Your task to perform on an android device: star an email in the gmail app Image 0: 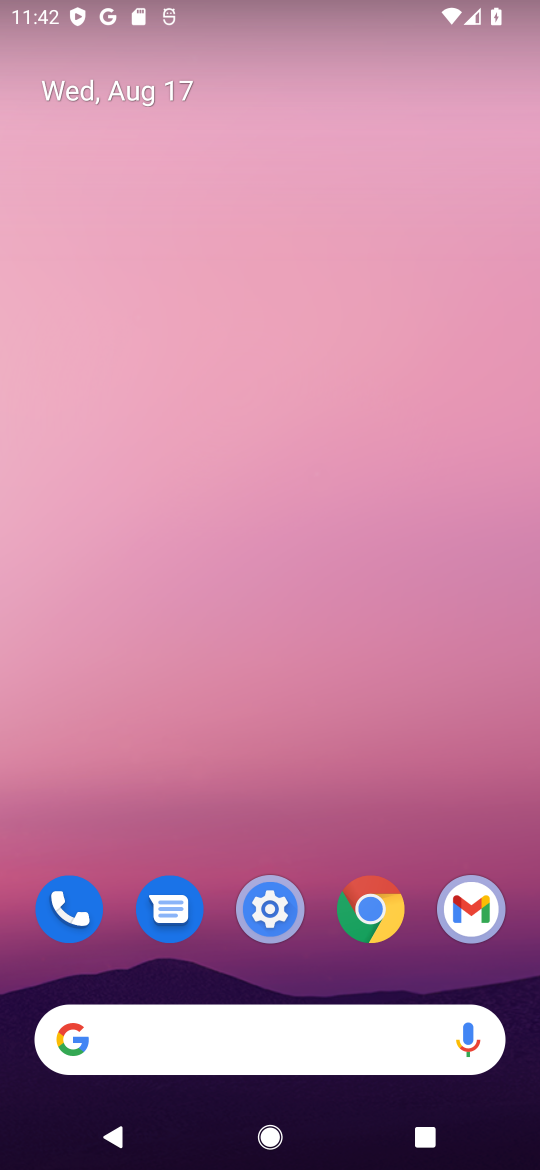
Step 0: click (472, 913)
Your task to perform on an android device: star an email in the gmail app Image 1: 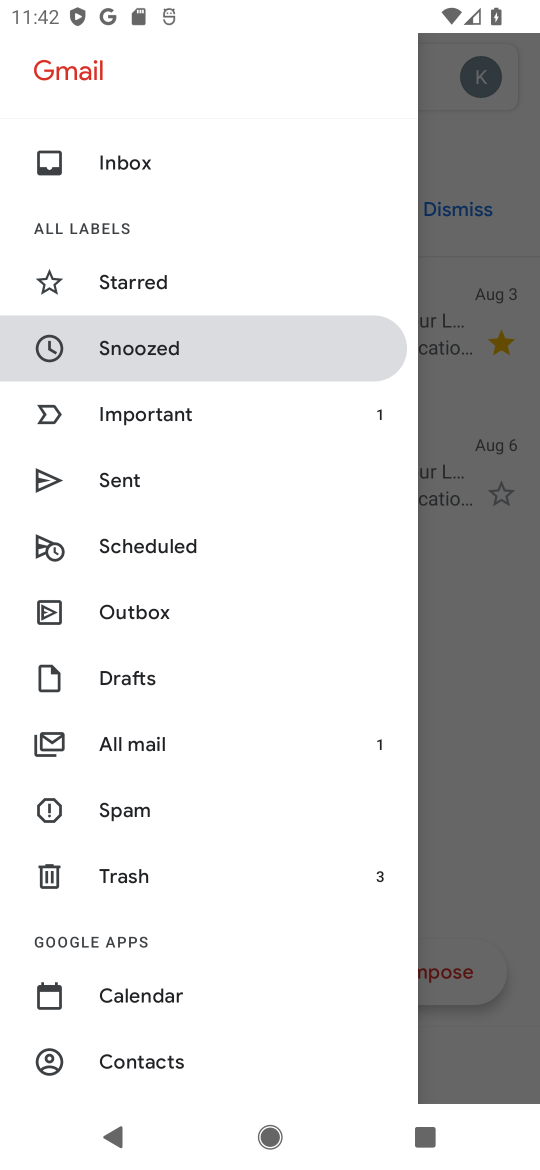
Step 1: click (134, 740)
Your task to perform on an android device: star an email in the gmail app Image 2: 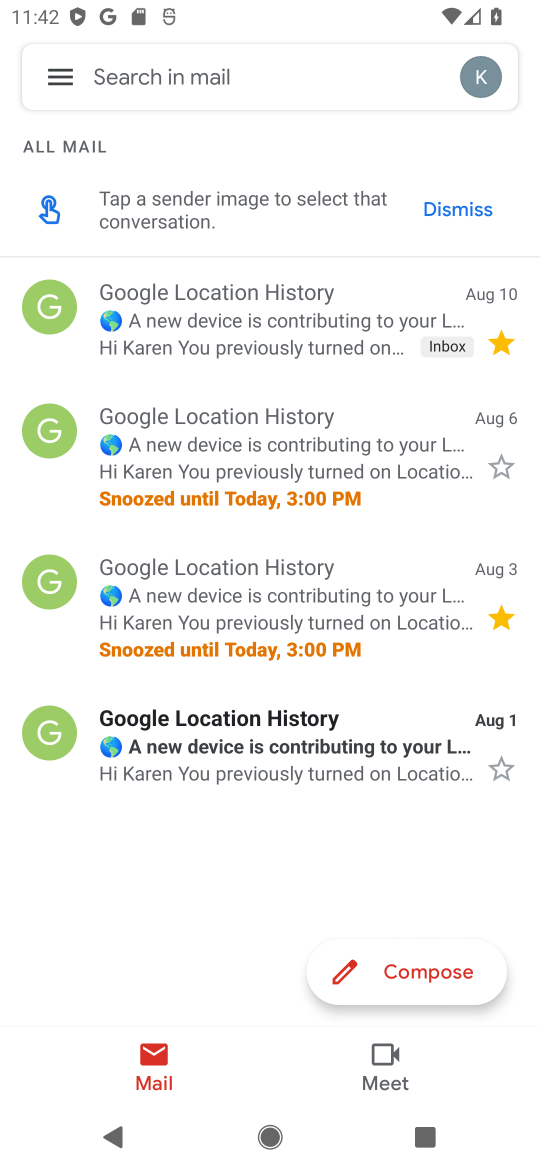
Step 2: click (497, 766)
Your task to perform on an android device: star an email in the gmail app Image 3: 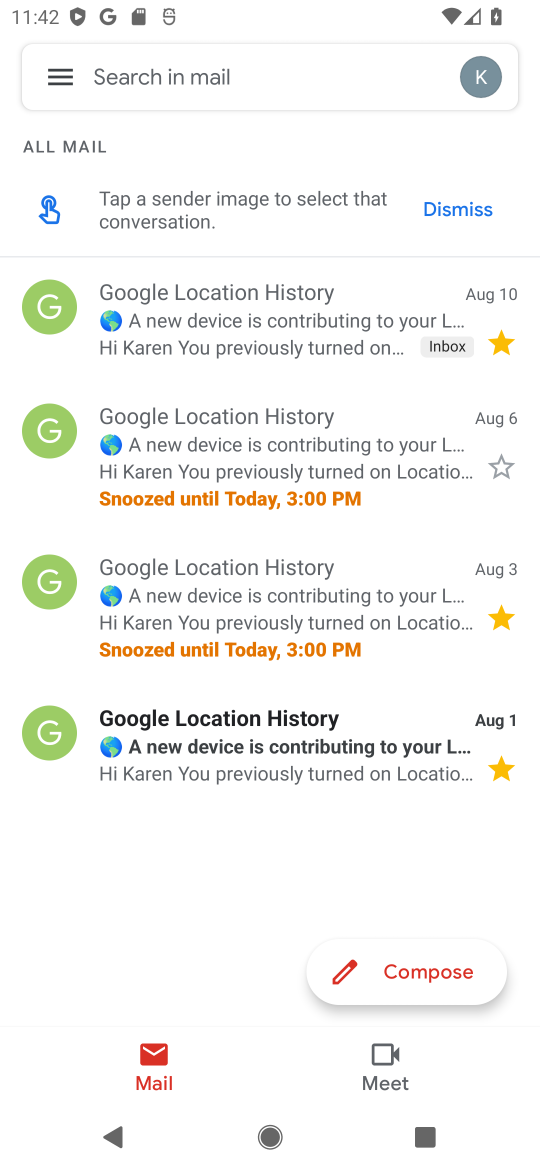
Step 3: task complete